Your task to perform on an android device: turn on bluetooth scan Image 0: 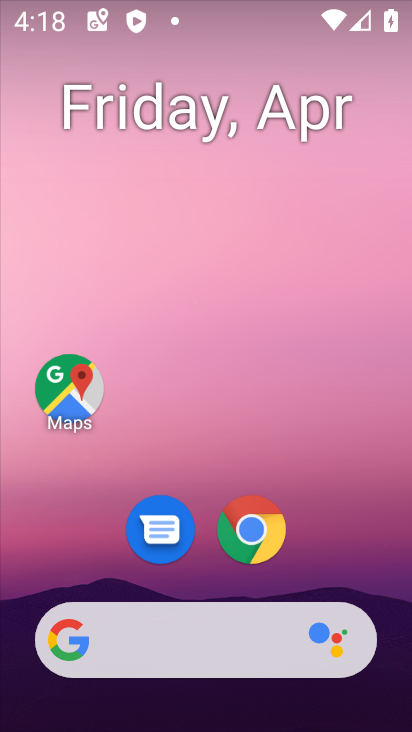
Step 0: drag from (233, 660) to (228, 190)
Your task to perform on an android device: turn on bluetooth scan Image 1: 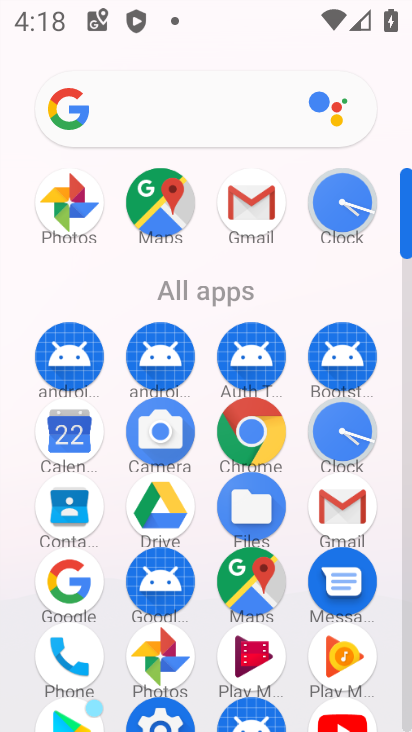
Step 1: drag from (194, 654) to (198, 207)
Your task to perform on an android device: turn on bluetooth scan Image 2: 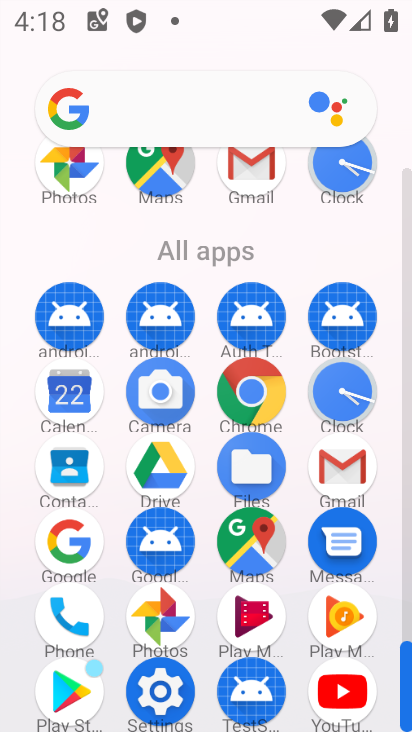
Step 2: click (157, 686)
Your task to perform on an android device: turn on bluetooth scan Image 3: 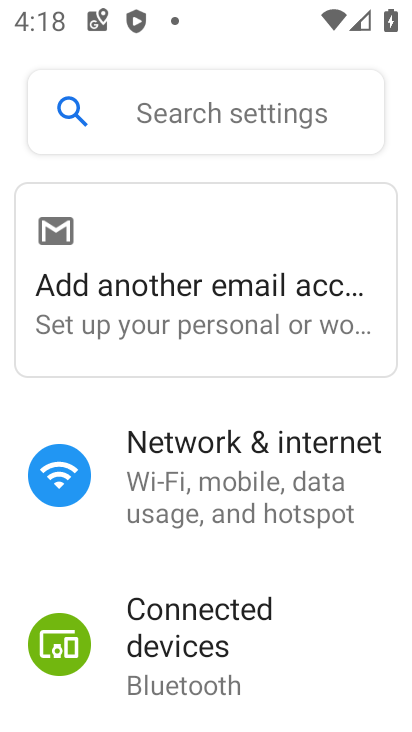
Step 3: drag from (201, 684) to (189, 219)
Your task to perform on an android device: turn on bluetooth scan Image 4: 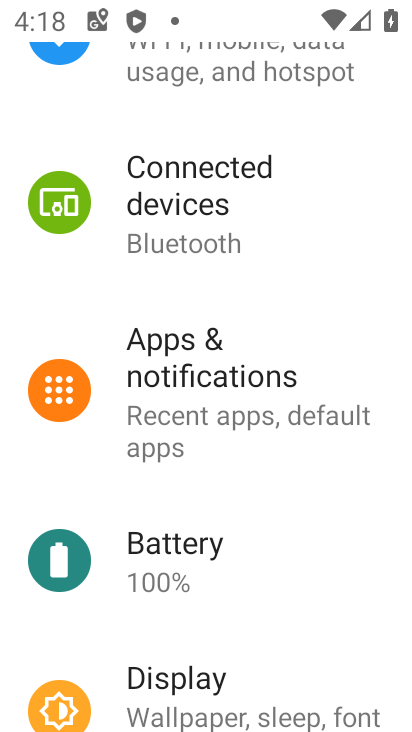
Step 4: drag from (185, 630) to (188, 274)
Your task to perform on an android device: turn on bluetooth scan Image 5: 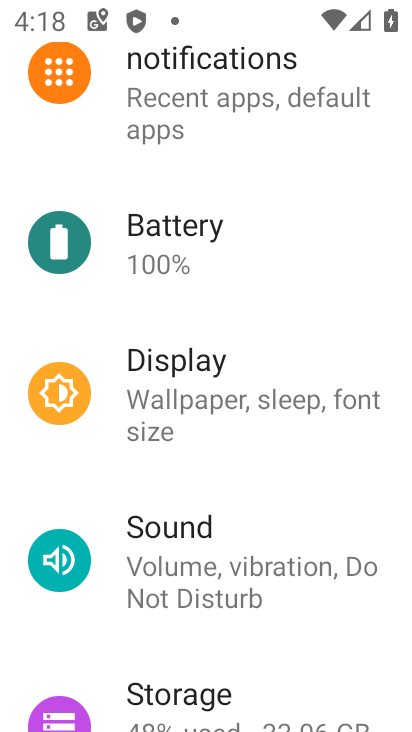
Step 5: drag from (215, 676) to (210, 272)
Your task to perform on an android device: turn on bluetooth scan Image 6: 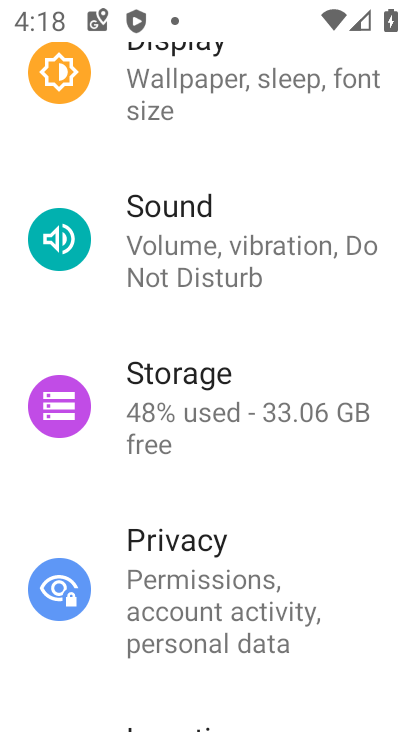
Step 6: drag from (193, 686) to (183, 321)
Your task to perform on an android device: turn on bluetooth scan Image 7: 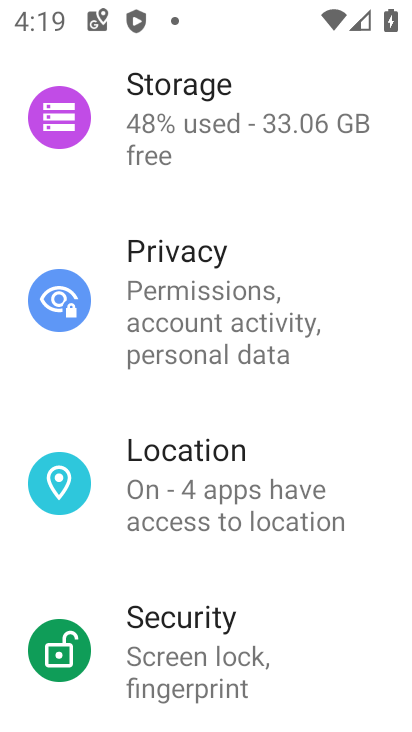
Step 7: click (205, 495)
Your task to perform on an android device: turn on bluetooth scan Image 8: 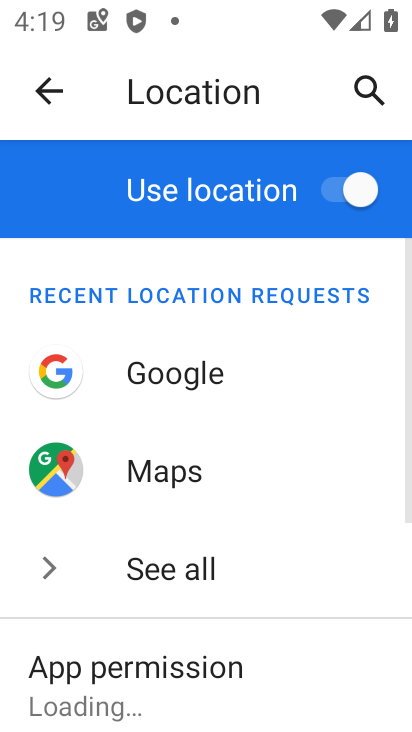
Step 8: drag from (253, 688) to (227, 291)
Your task to perform on an android device: turn on bluetooth scan Image 9: 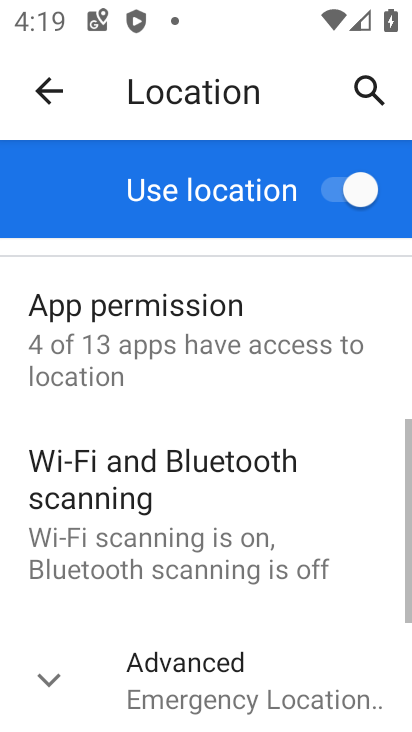
Step 9: click (133, 465)
Your task to perform on an android device: turn on bluetooth scan Image 10: 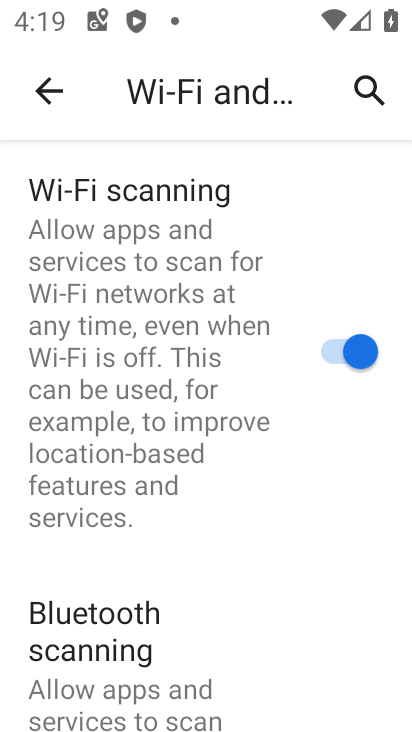
Step 10: drag from (203, 651) to (204, 191)
Your task to perform on an android device: turn on bluetooth scan Image 11: 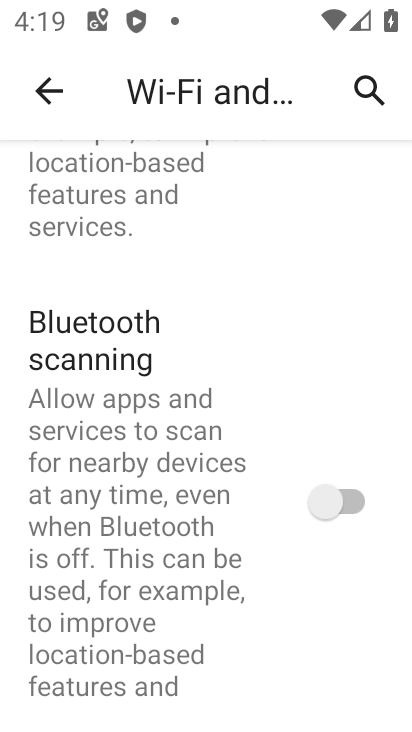
Step 11: click (358, 497)
Your task to perform on an android device: turn on bluetooth scan Image 12: 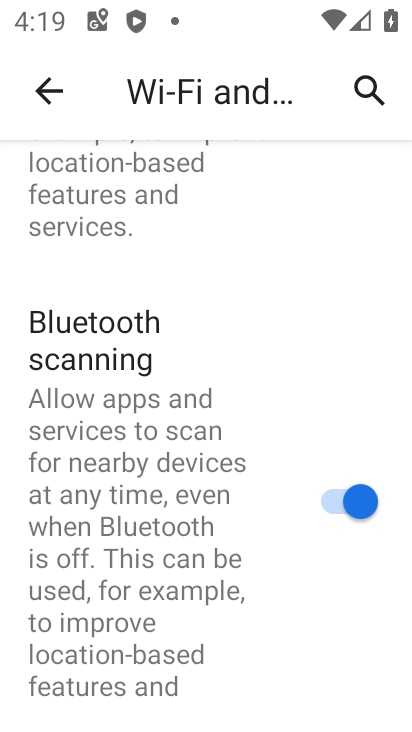
Step 12: task complete